Your task to perform on an android device: turn off location history Image 0: 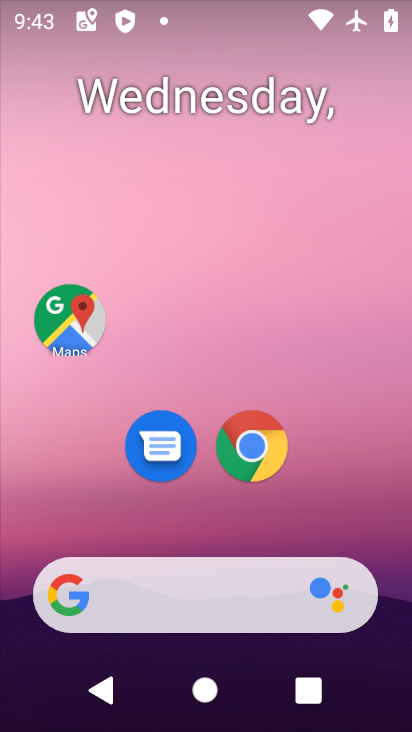
Step 0: press home button
Your task to perform on an android device: turn off location history Image 1: 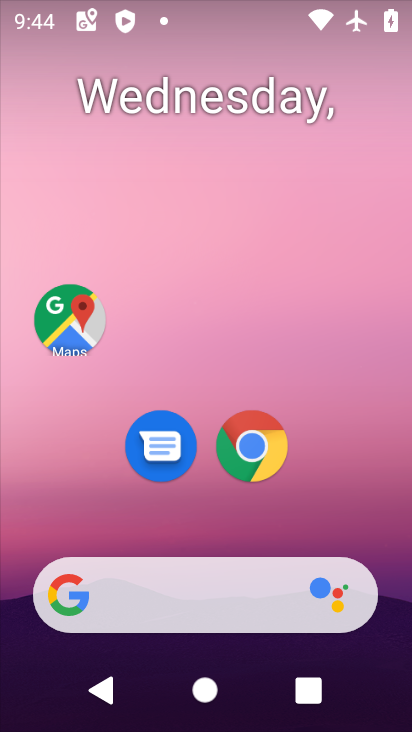
Step 1: click (71, 325)
Your task to perform on an android device: turn off location history Image 2: 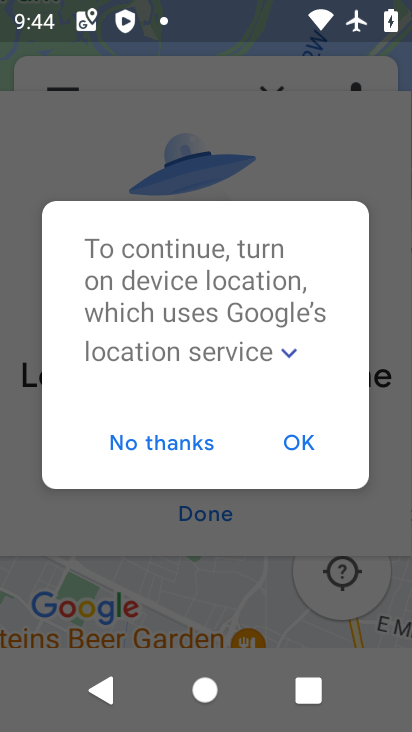
Step 2: click (203, 517)
Your task to perform on an android device: turn off location history Image 3: 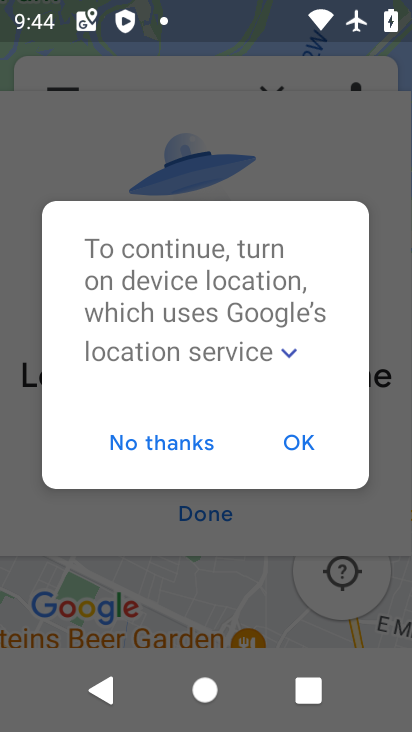
Step 3: click (303, 441)
Your task to perform on an android device: turn off location history Image 4: 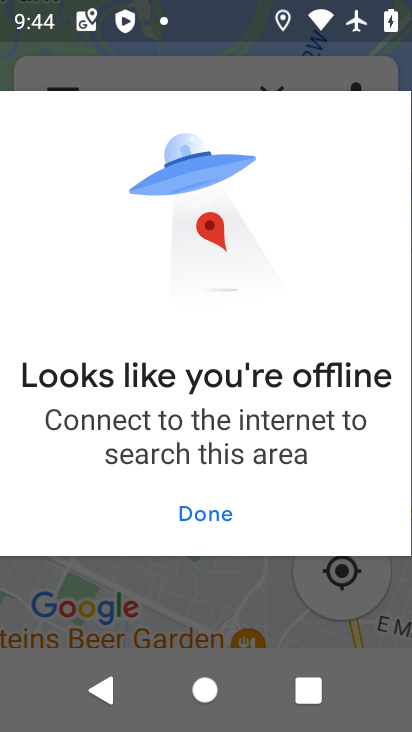
Step 4: click (219, 511)
Your task to perform on an android device: turn off location history Image 5: 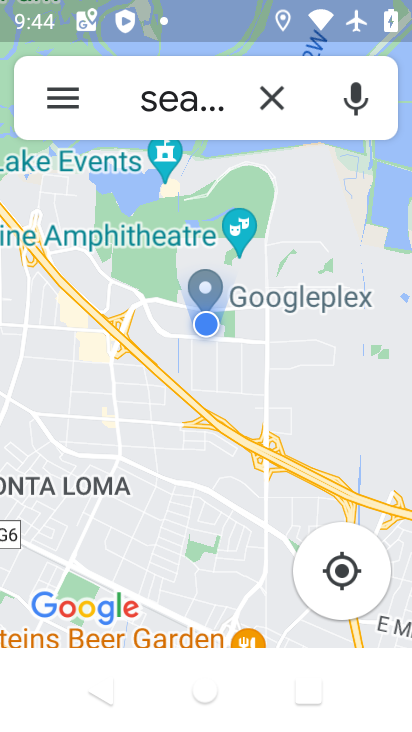
Step 5: click (53, 94)
Your task to perform on an android device: turn off location history Image 6: 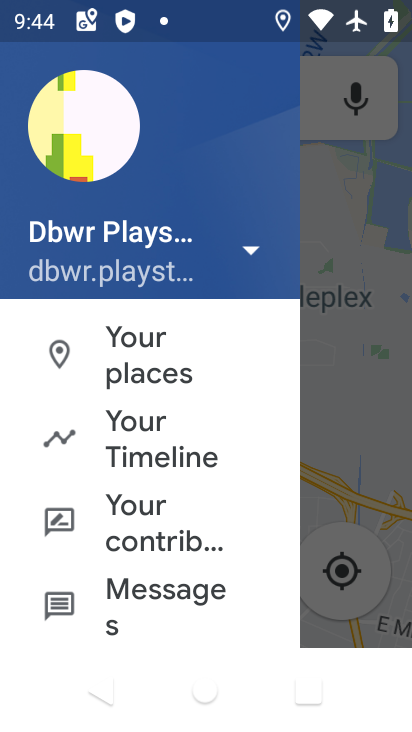
Step 6: click (168, 440)
Your task to perform on an android device: turn off location history Image 7: 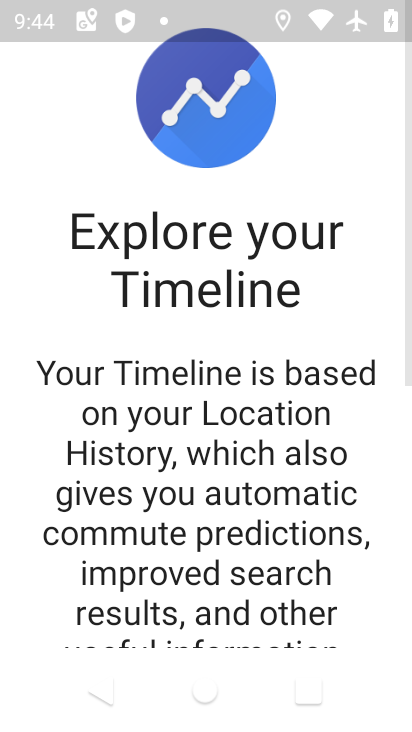
Step 7: drag from (219, 599) to (295, 57)
Your task to perform on an android device: turn off location history Image 8: 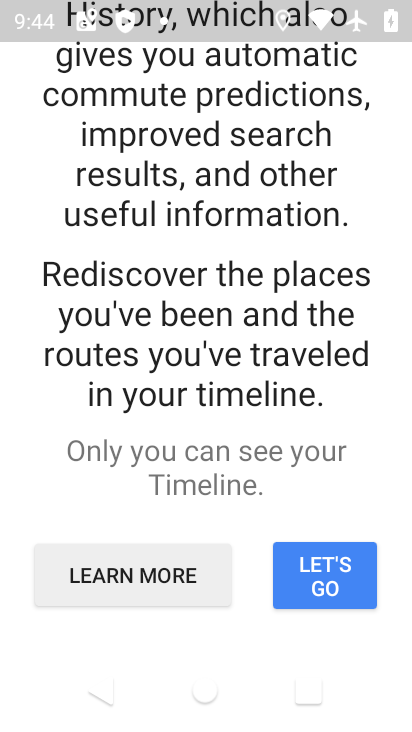
Step 8: click (310, 575)
Your task to perform on an android device: turn off location history Image 9: 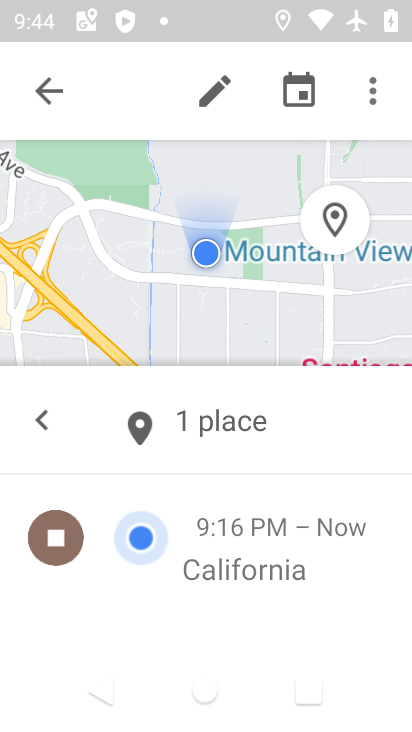
Step 9: click (373, 99)
Your task to perform on an android device: turn off location history Image 10: 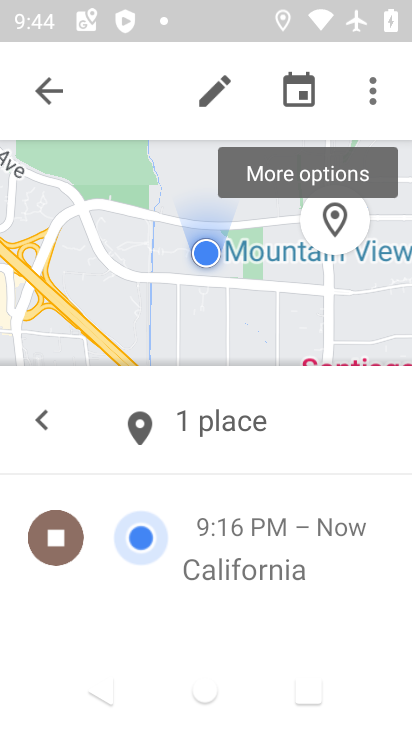
Step 10: click (373, 99)
Your task to perform on an android device: turn off location history Image 11: 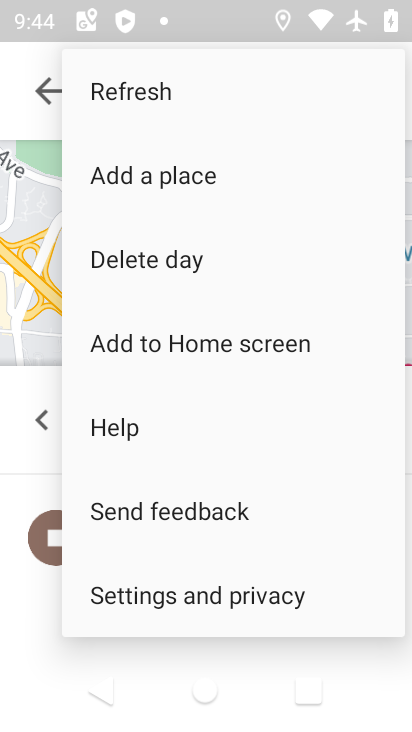
Step 11: click (176, 590)
Your task to perform on an android device: turn off location history Image 12: 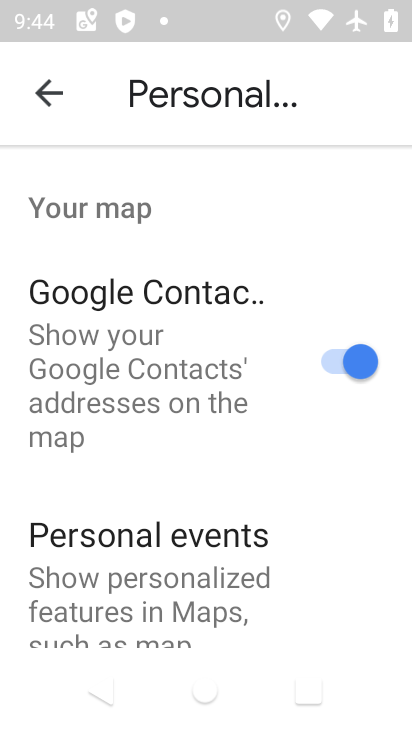
Step 12: drag from (197, 589) to (247, 167)
Your task to perform on an android device: turn off location history Image 13: 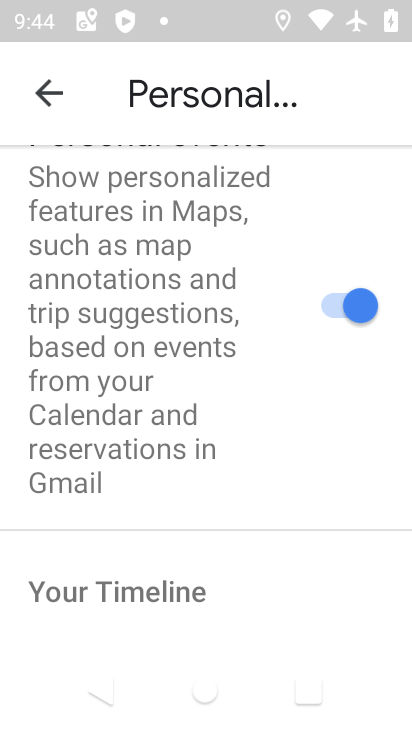
Step 13: drag from (197, 589) to (289, 147)
Your task to perform on an android device: turn off location history Image 14: 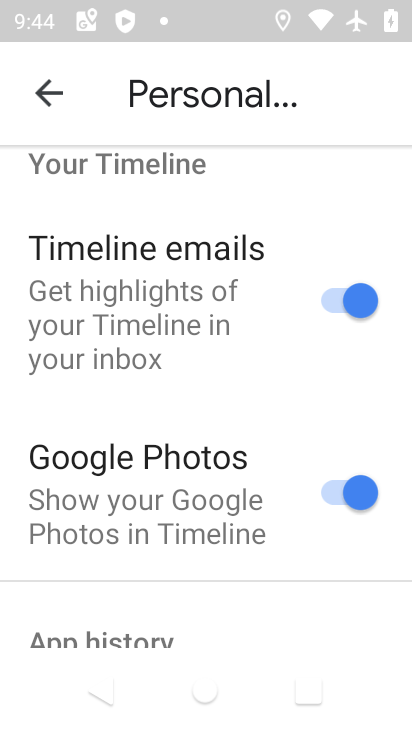
Step 14: drag from (160, 599) to (291, 128)
Your task to perform on an android device: turn off location history Image 15: 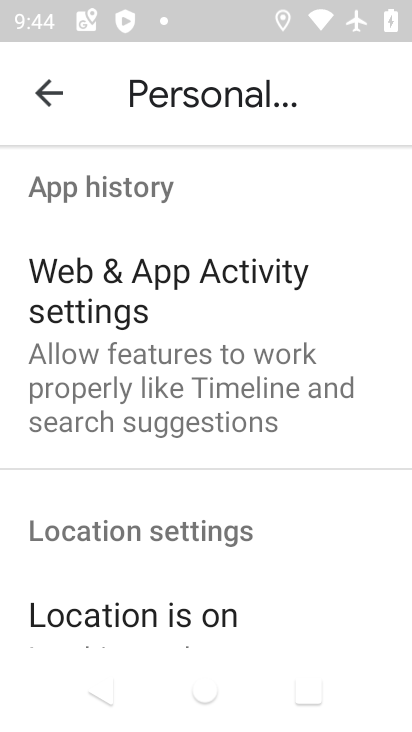
Step 15: drag from (188, 554) to (314, 124)
Your task to perform on an android device: turn off location history Image 16: 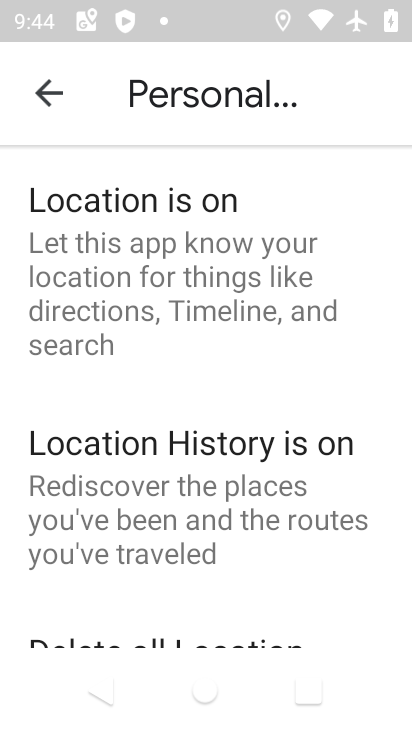
Step 16: click (192, 491)
Your task to perform on an android device: turn off location history Image 17: 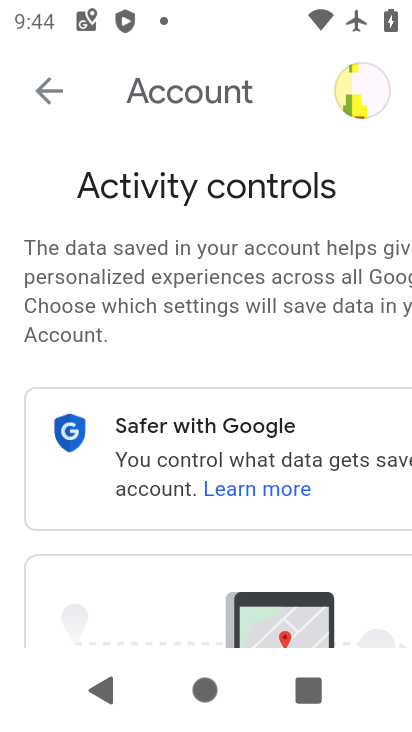
Step 17: drag from (148, 594) to (288, 100)
Your task to perform on an android device: turn off location history Image 18: 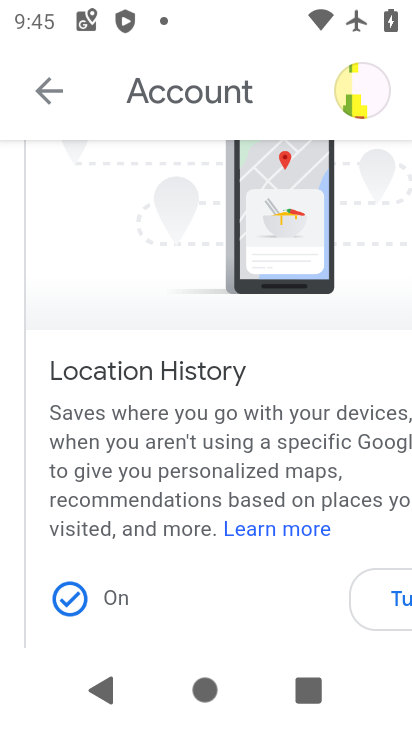
Step 18: drag from (181, 535) to (261, 272)
Your task to perform on an android device: turn off location history Image 19: 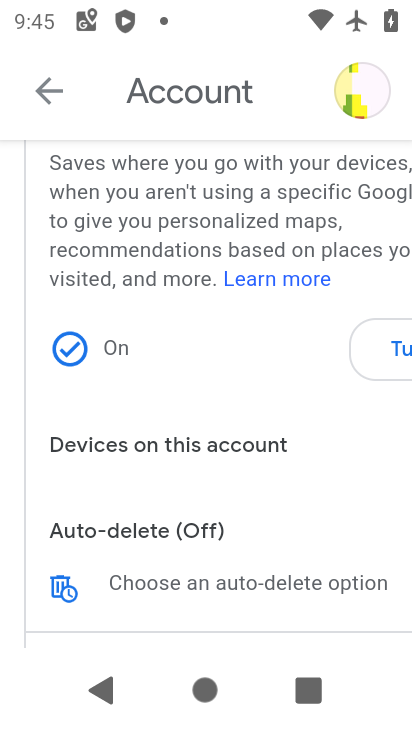
Step 19: click (391, 351)
Your task to perform on an android device: turn off location history Image 20: 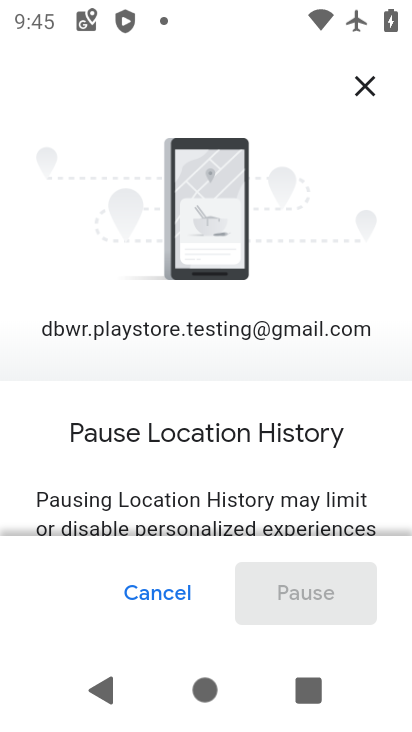
Step 20: drag from (278, 295) to (293, 99)
Your task to perform on an android device: turn off location history Image 21: 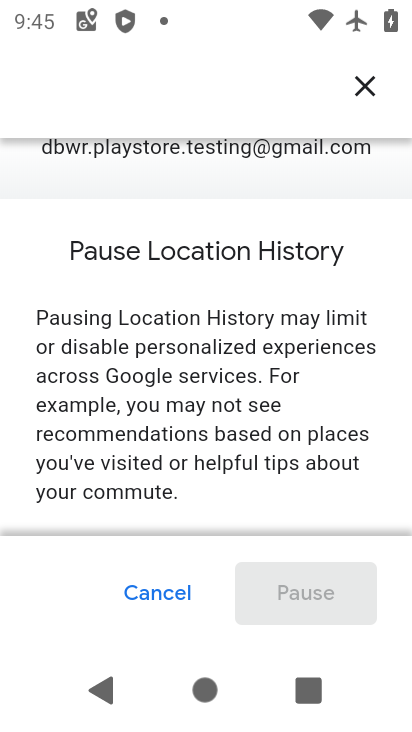
Step 21: drag from (258, 497) to (352, 85)
Your task to perform on an android device: turn off location history Image 22: 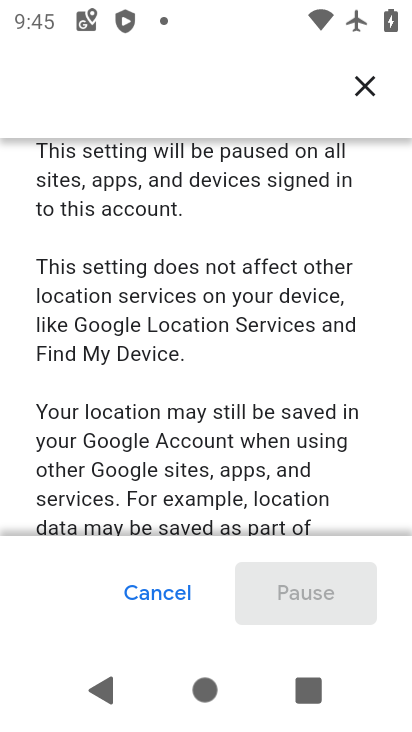
Step 22: drag from (300, 279) to (337, 44)
Your task to perform on an android device: turn off location history Image 23: 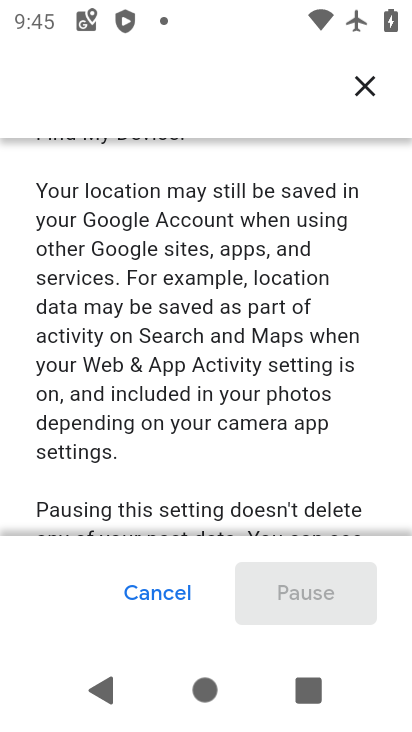
Step 23: drag from (215, 492) to (303, 24)
Your task to perform on an android device: turn off location history Image 24: 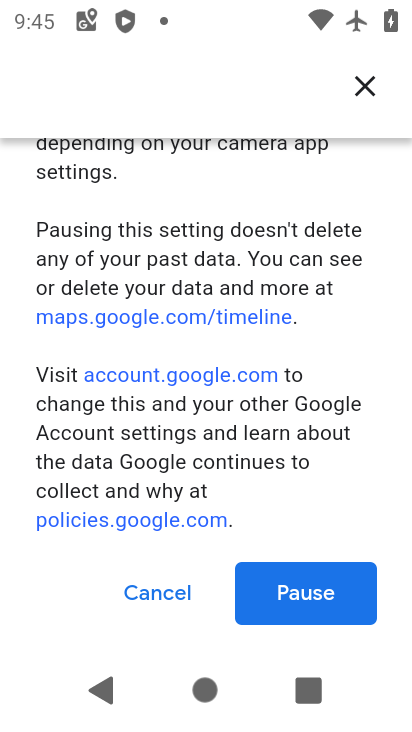
Step 24: click (313, 594)
Your task to perform on an android device: turn off location history Image 25: 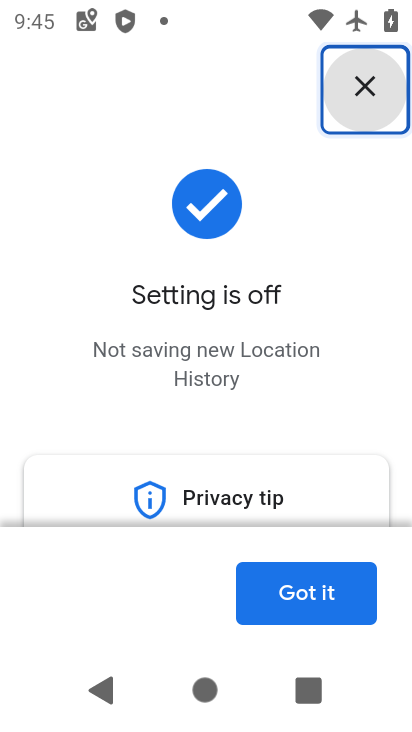
Step 25: click (313, 594)
Your task to perform on an android device: turn off location history Image 26: 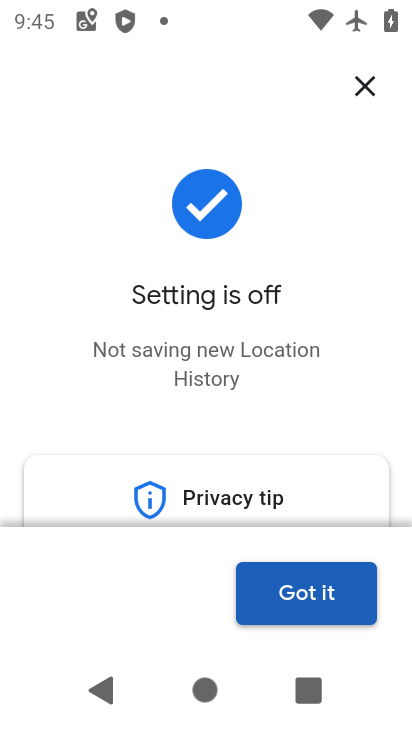
Step 26: click (316, 602)
Your task to perform on an android device: turn off location history Image 27: 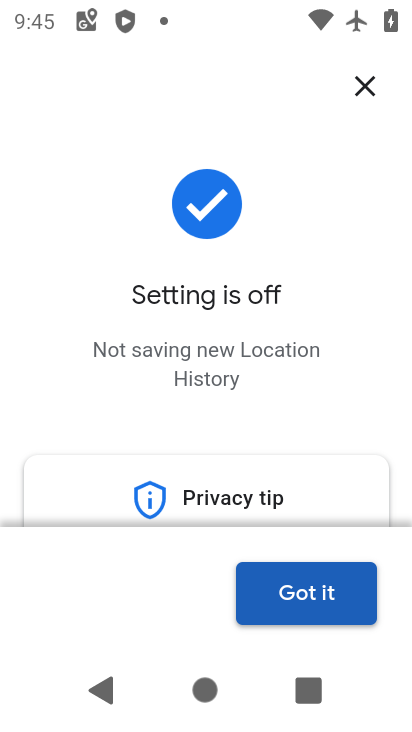
Step 27: click (312, 601)
Your task to perform on an android device: turn off location history Image 28: 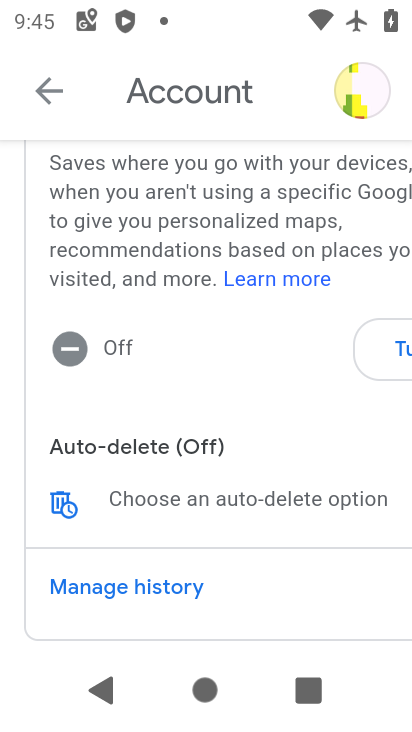
Step 28: task complete